Your task to perform on an android device: change the clock display to analog Image 0: 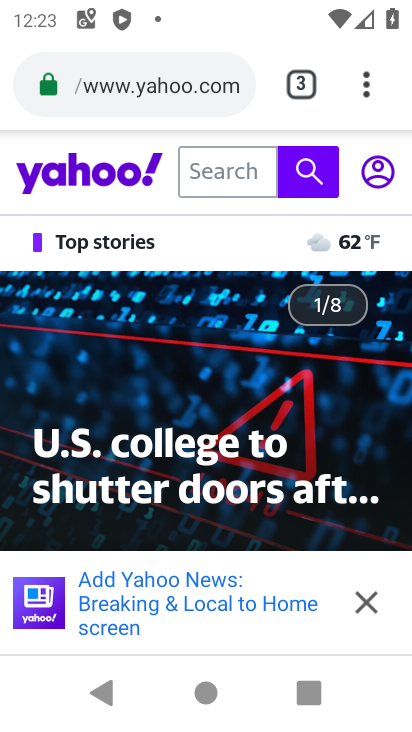
Step 0: press home button
Your task to perform on an android device: change the clock display to analog Image 1: 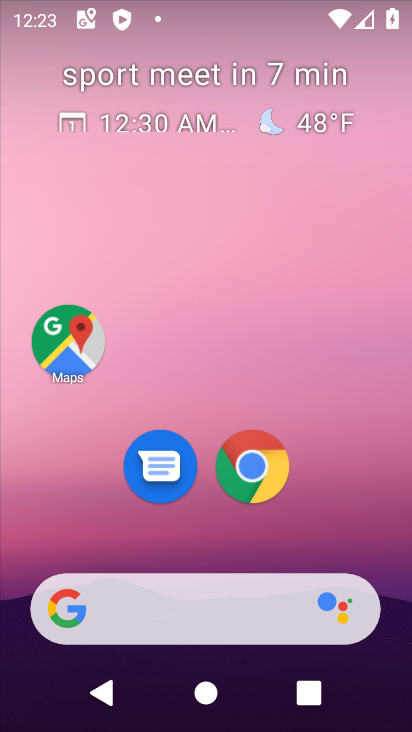
Step 1: drag from (396, 622) to (308, 47)
Your task to perform on an android device: change the clock display to analog Image 2: 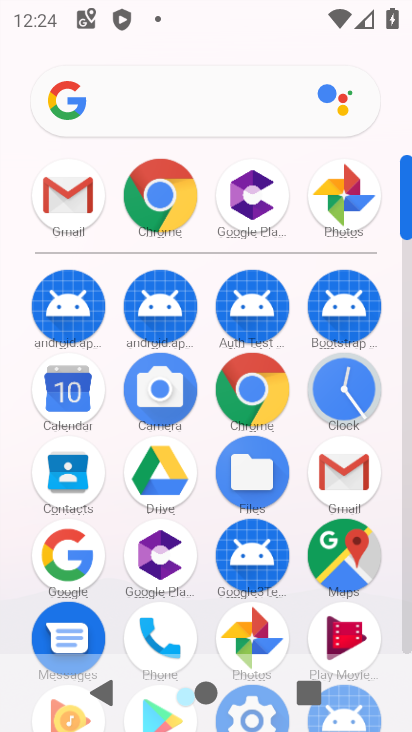
Step 2: click (406, 624)
Your task to perform on an android device: change the clock display to analog Image 3: 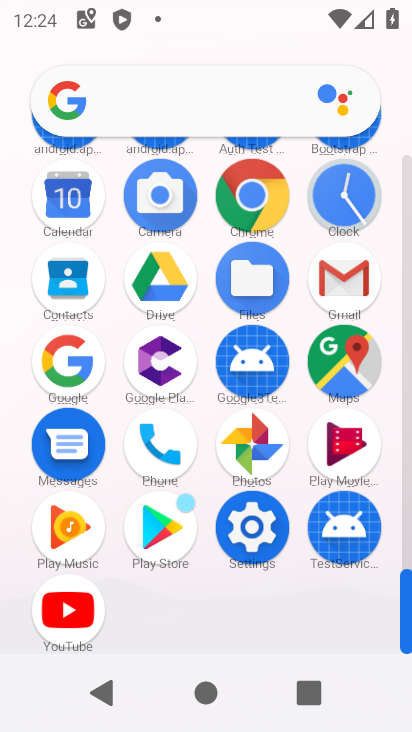
Step 3: click (343, 193)
Your task to perform on an android device: change the clock display to analog Image 4: 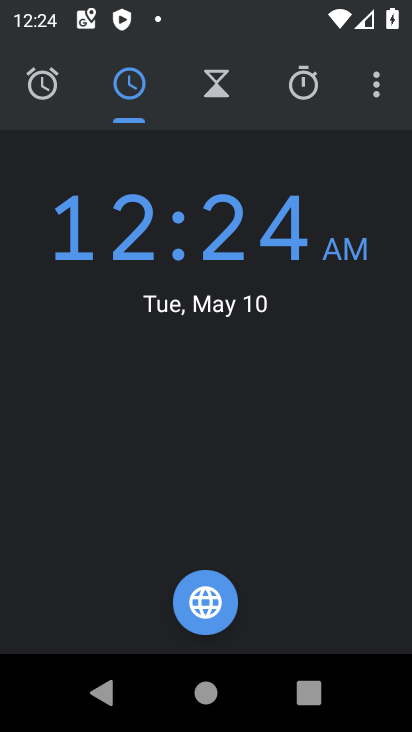
Step 4: click (376, 95)
Your task to perform on an android device: change the clock display to analog Image 5: 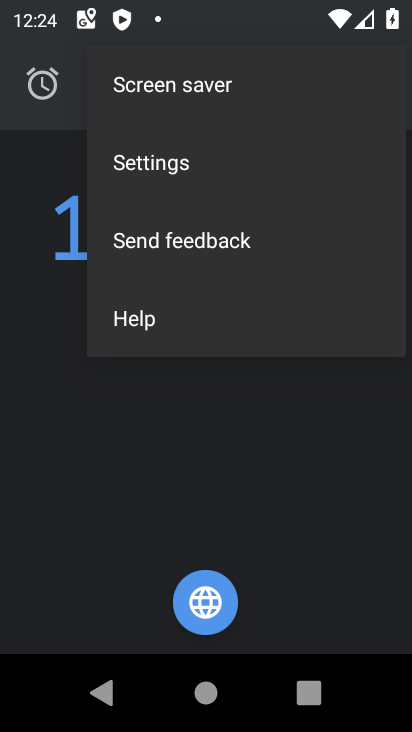
Step 5: click (161, 155)
Your task to perform on an android device: change the clock display to analog Image 6: 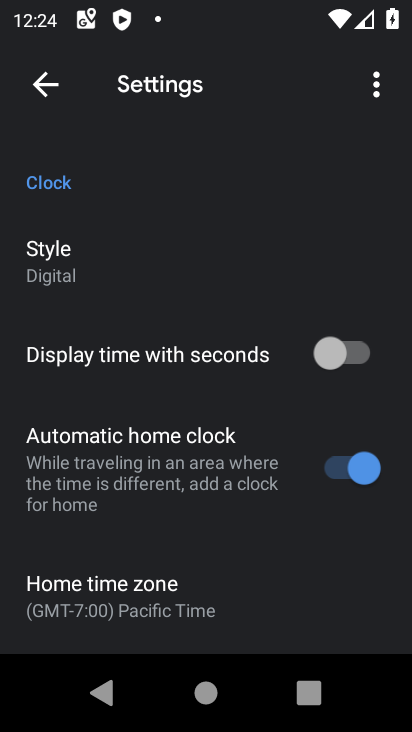
Step 6: click (41, 266)
Your task to perform on an android device: change the clock display to analog Image 7: 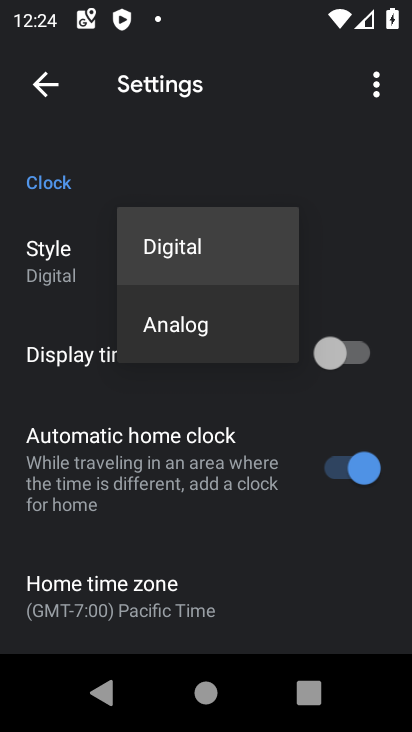
Step 7: click (195, 327)
Your task to perform on an android device: change the clock display to analog Image 8: 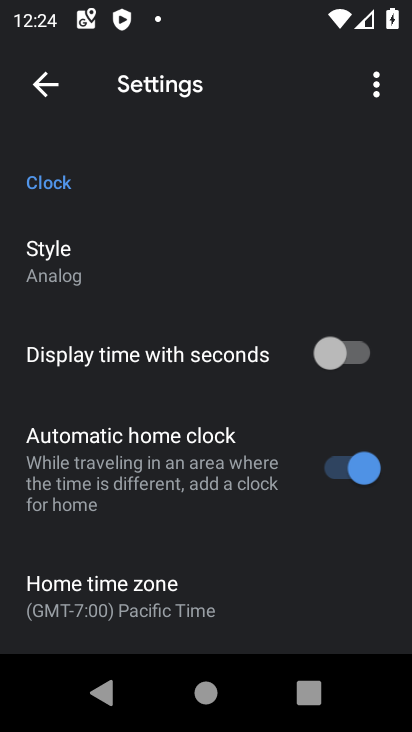
Step 8: task complete